Your task to perform on an android device: toggle airplane mode Image 0: 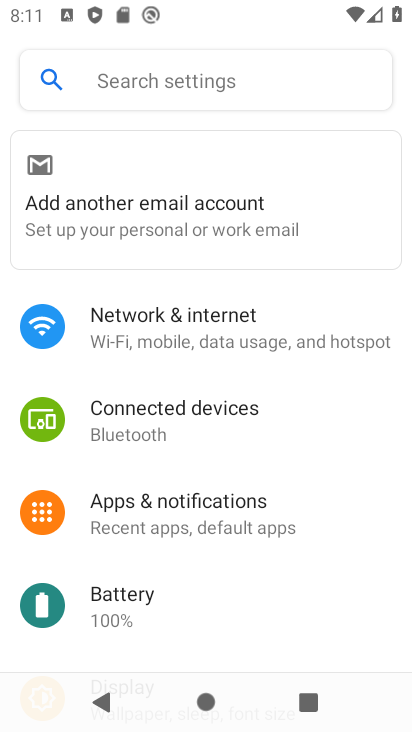
Step 0: press home button
Your task to perform on an android device: toggle airplane mode Image 1: 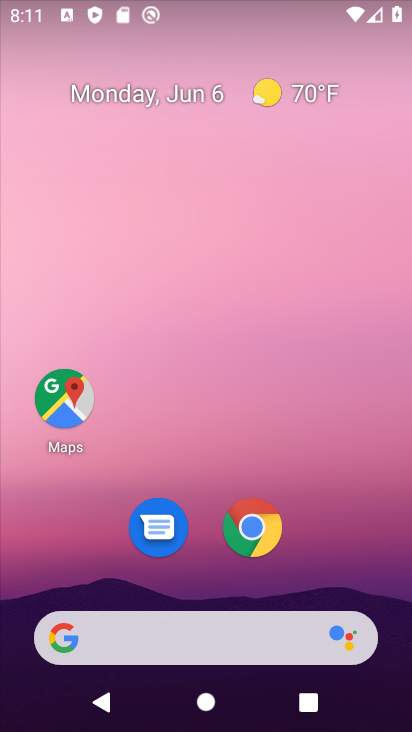
Step 1: drag from (205, 530) to (220, 350)
Your task to perform on an android device: toggle airplane mode Image 2: 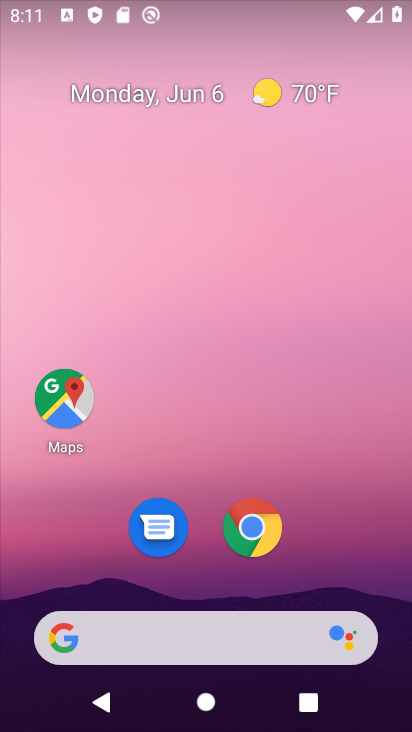
Step 2: drag from (229, 600) to (222, 234)
Your task to perform on an android device: toggle airplane mode Image 3: 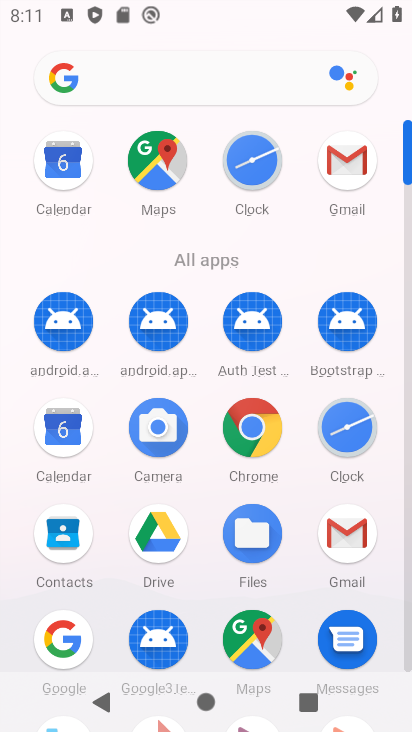
Step 3: drag from (199, 513) to (221, 307)
Your task to perform on an android device: toggle airplane mode Image 4: 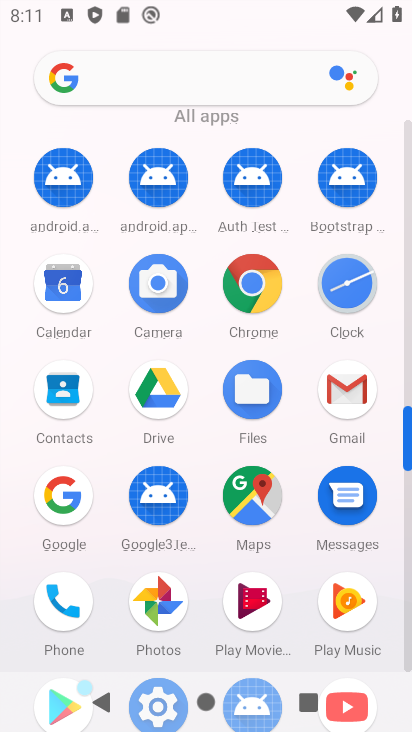
Step 4: drag from (217, 500) to (213, 356)
Your task to perform on an android device: toggle airplane mode Image 5: 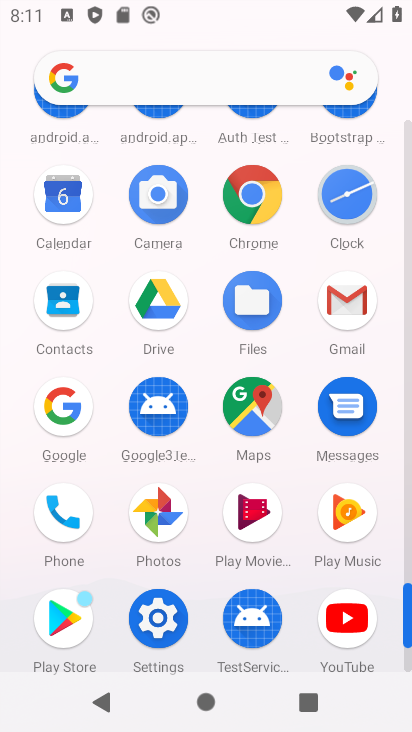
Step 5: click (167, 631)
Your task to perform on an android device: toggle airplane mode Image 6: 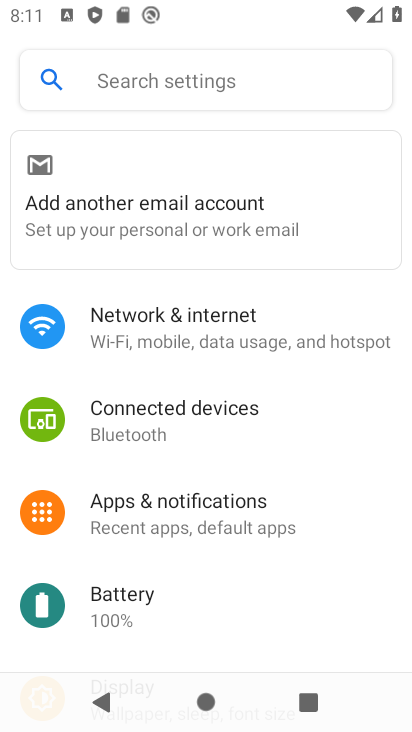
Step 6: click (180, 346)
Your task to perform on an android device: toggle airplane mode Image 7: 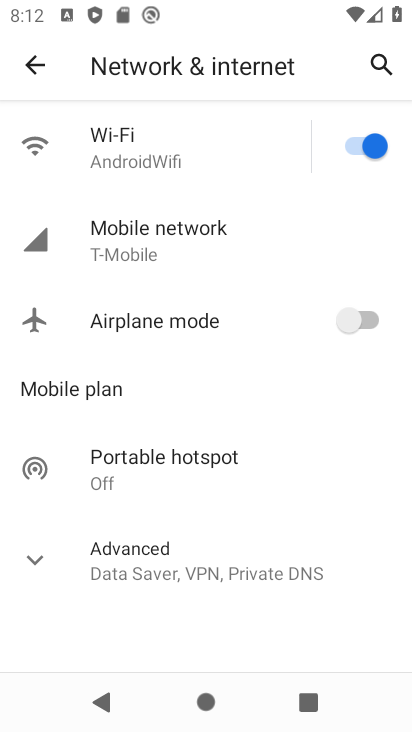
Step 7: click (185, 325)
Your task to perform on an android device: toggle airplane mode Image 8: 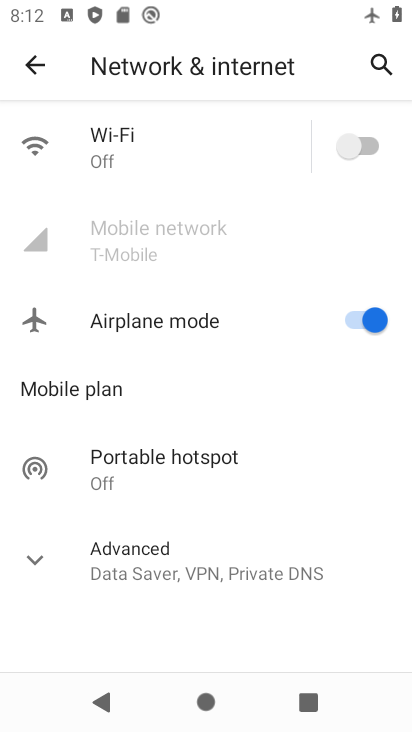
Step 8: task complete